Your task to perform on an android device: Open Google Chrome and click the shortcut for Amazon.com Image 0: 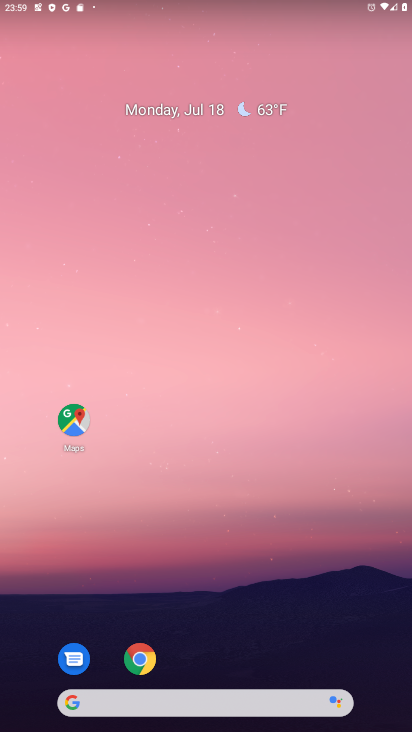
Step 0: click (138, 659)
Your task to perform on an android device: Open Google Chrome and click the shortcut for Amazon.com Image 1: 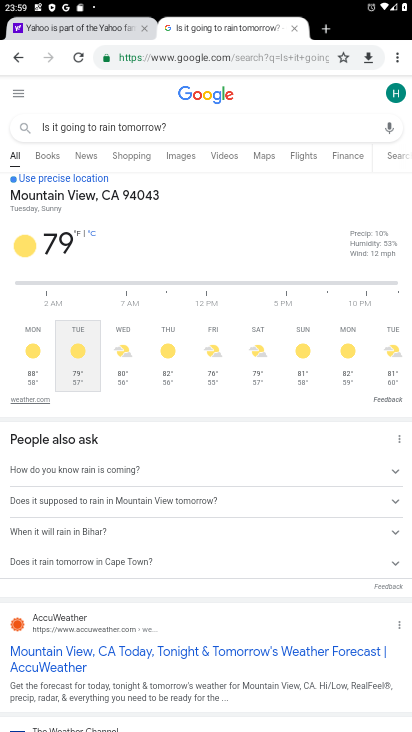
Step 1: click (241, 60)
Your task to perform on an android device: Open Google Chrome and click the shortcut for Amazon.com Image 2: 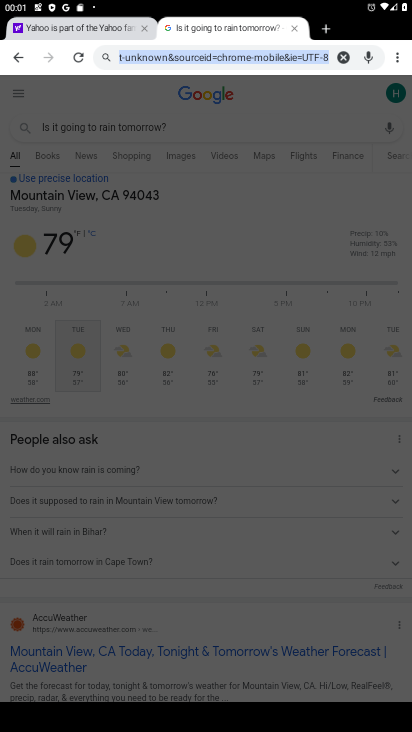
Step 2: type "Amazon.com"
Your task to perform on an android device: Open Google Chrome and click the shortcut for Amazon.com Image 3: 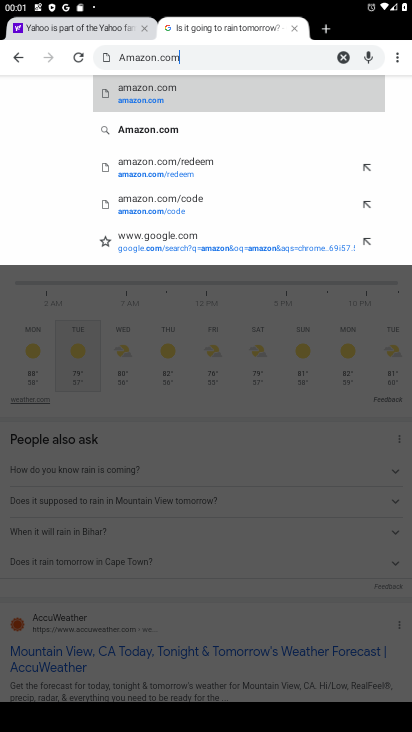
Step 3: click (156, 101)
Your task to perform on an android device: Open Google Chrome and click the shortcut for Amazon.com Image 4: 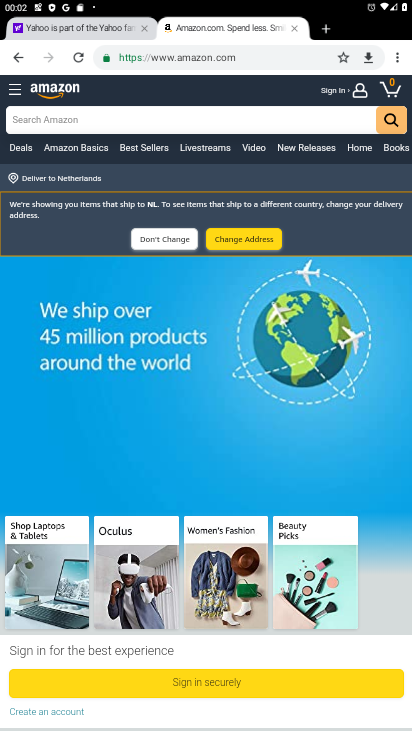
Step 4: task complete